Your task to perform on an android device: visit the assistant section in the google photos Image 0: 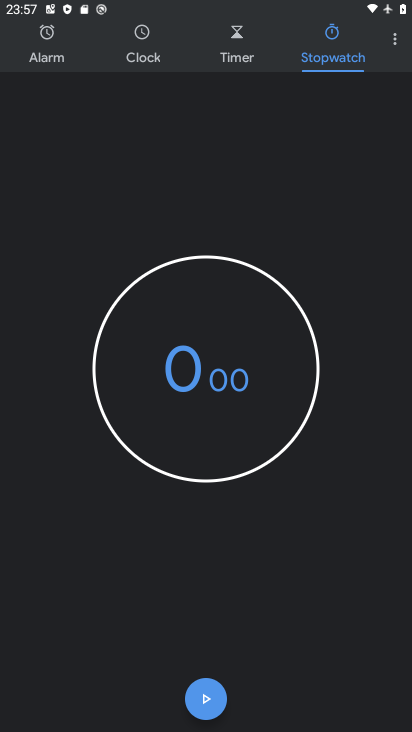
Step 0: press home button
Your task to perform on an android device: visit the assistant section in the google photos Image 1: 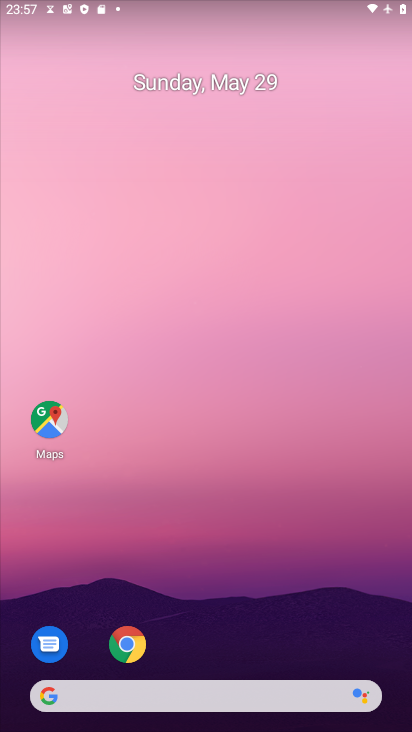
Step 1: drag from (272, 587) to (264, 547)
Your task to perform on an android device: visit the assistant section in the google photos Image 2: 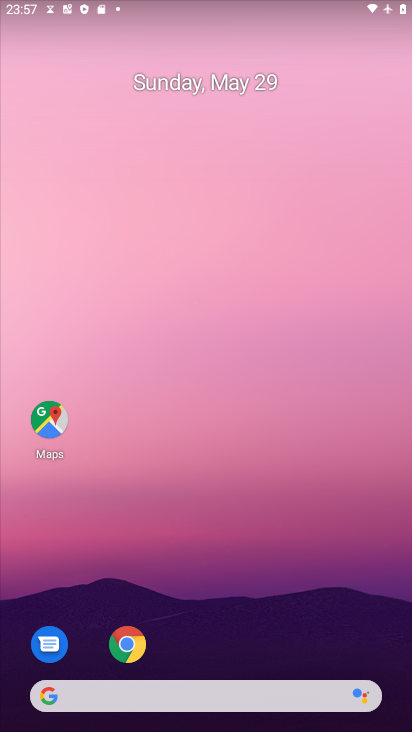
Step 2: drag from (203, 610) to (203, 185)
Your task to perform on an android device: visit the assistant section in the google photos Image 3: 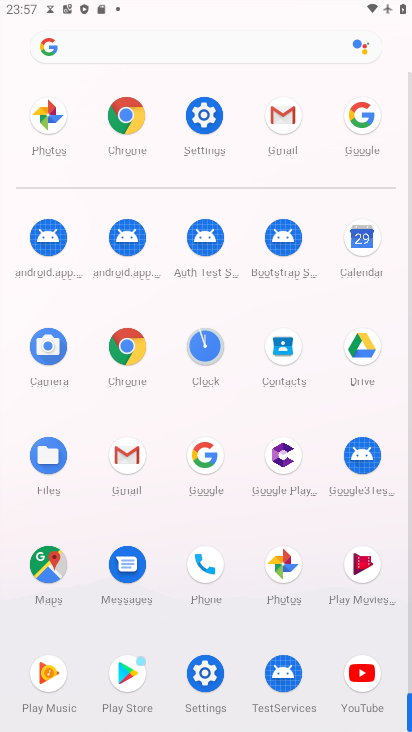
Step 3: drag from (172, 624) to (183, 348)
Your task to perform on an android device: visit the assistant section in the google photos Image 4: 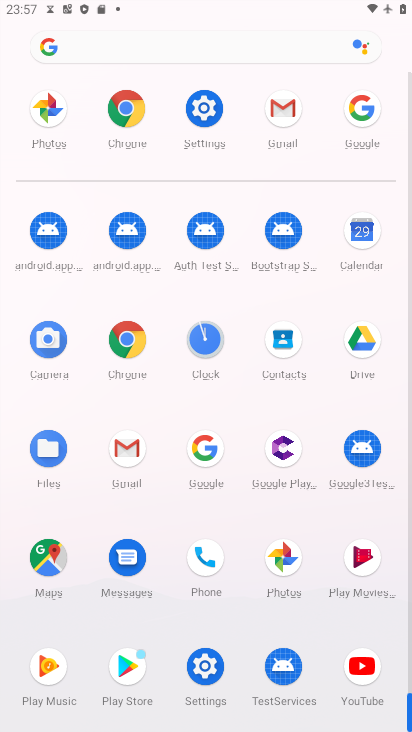
Step 4: click (277, 556)
Your task to perform on an android device: visit the assistant section in the google photos Image 5: 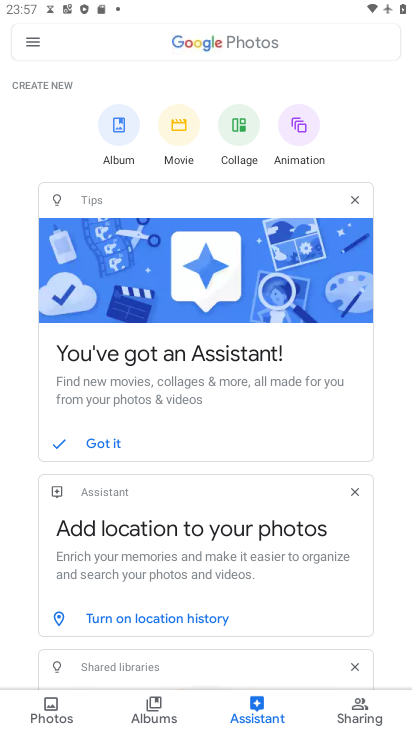
Step 5: task complete